Your task to perform on an android device: uninstall "Facebook Messenger" Image 0: 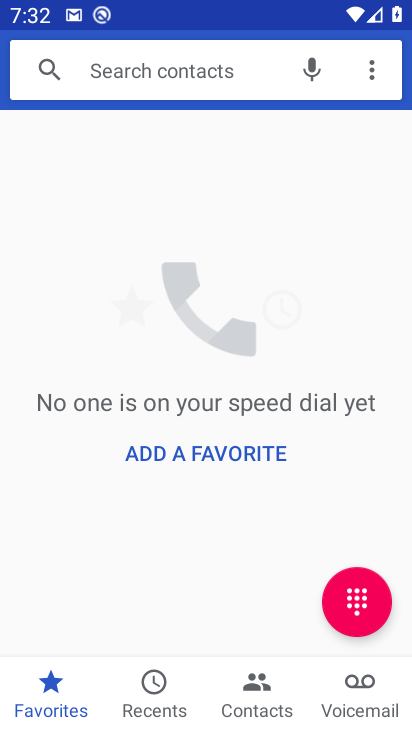
Step 0: press home button
Your task to perform on an android device: uninstall "Facebook Messenger" Image 1: 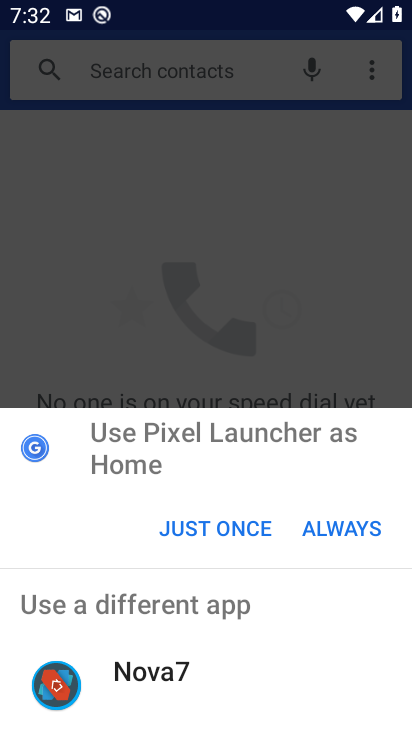
Step 1: click (328, 522)
Your task to perform on an android device: uninstall "Facebook Messenger" Image 2: 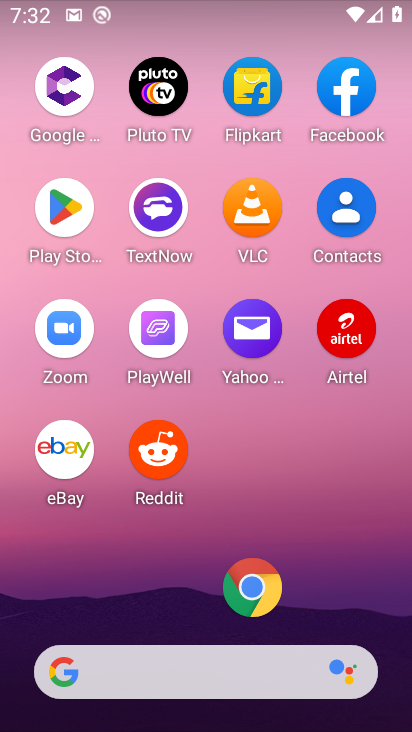
Step 2: click (354, 121)
Your task to perform on an android device: uninstall "Facebook Messenger" Image 3: 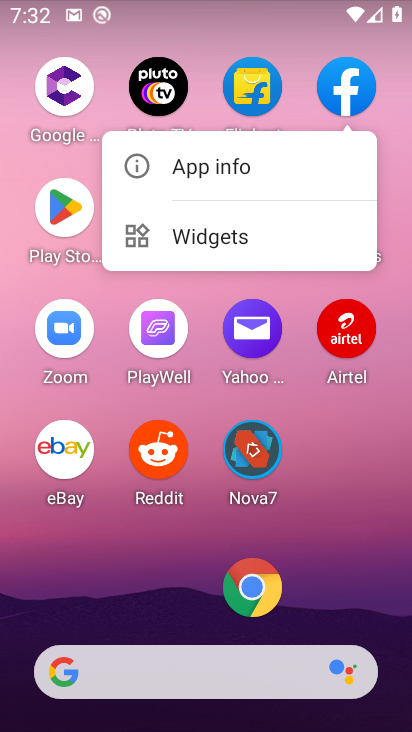
Step 3: click (240, 174)
Your task to perform on an android device: uninstall "Facebook Messenger" Image 4: 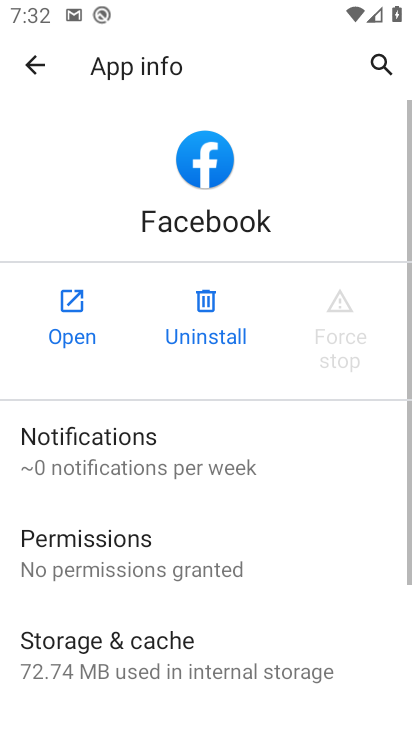
Step 4: click (198, 320)
Your task to perform on an android device: uninstall "Facebook Messenger" Image 5: 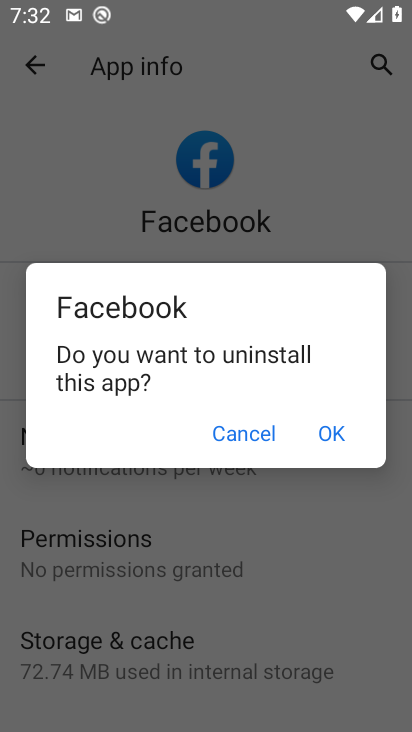
Step 5: click (317, 452)
Your task to perform on an android device: uninstall "Facebook Messenger" Image 6: 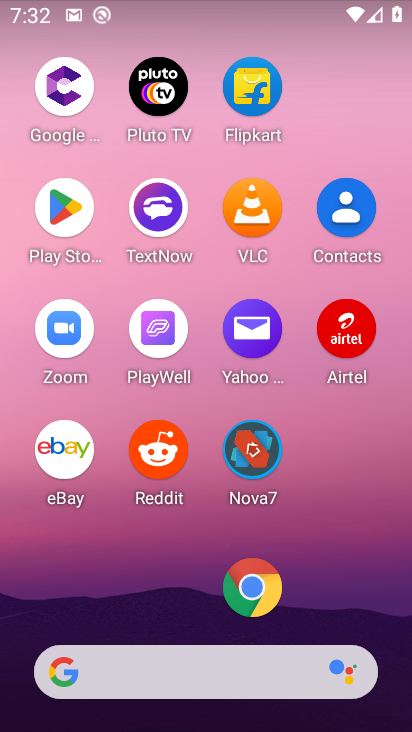
Step 6: task complete